Your task to perform on an android device: turn on wifi Image 0: 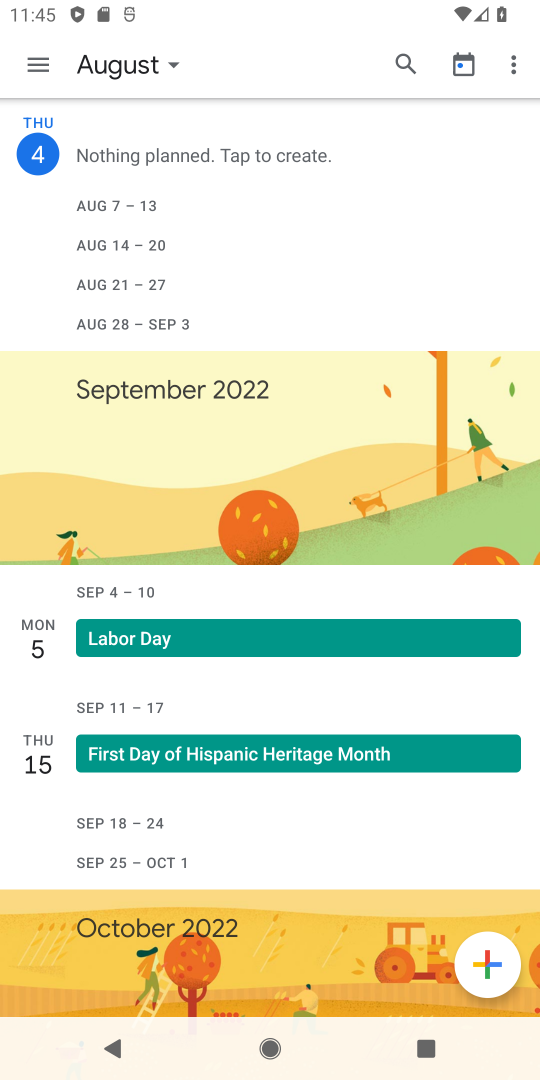
Step 0: press home button
Your task to perform on an android device: turn on wifi Image 1: 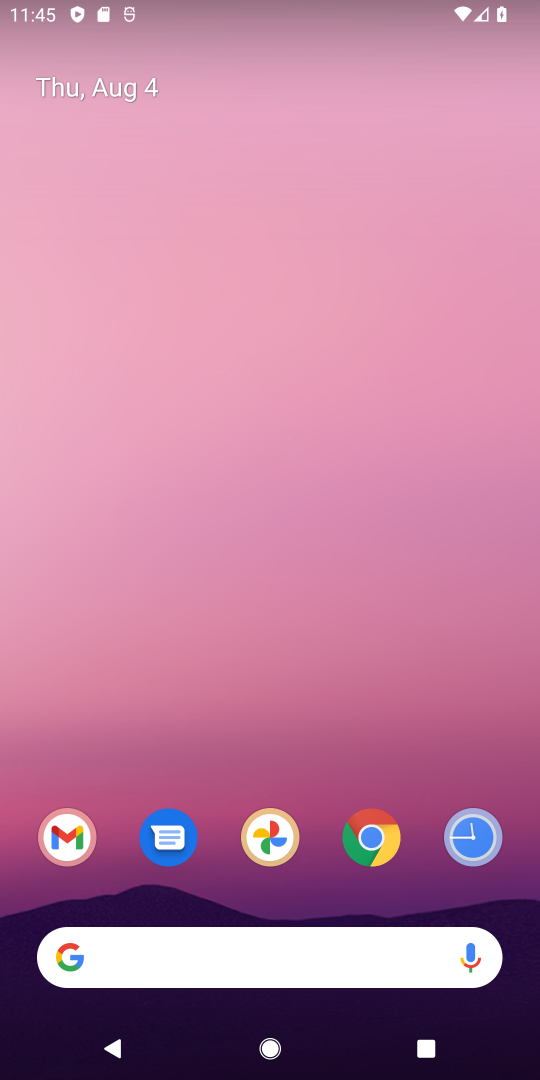
Step 1: drag from (296, 891) to (299, 232)
Your task to perform on an android device: turn on wifi Image 2: 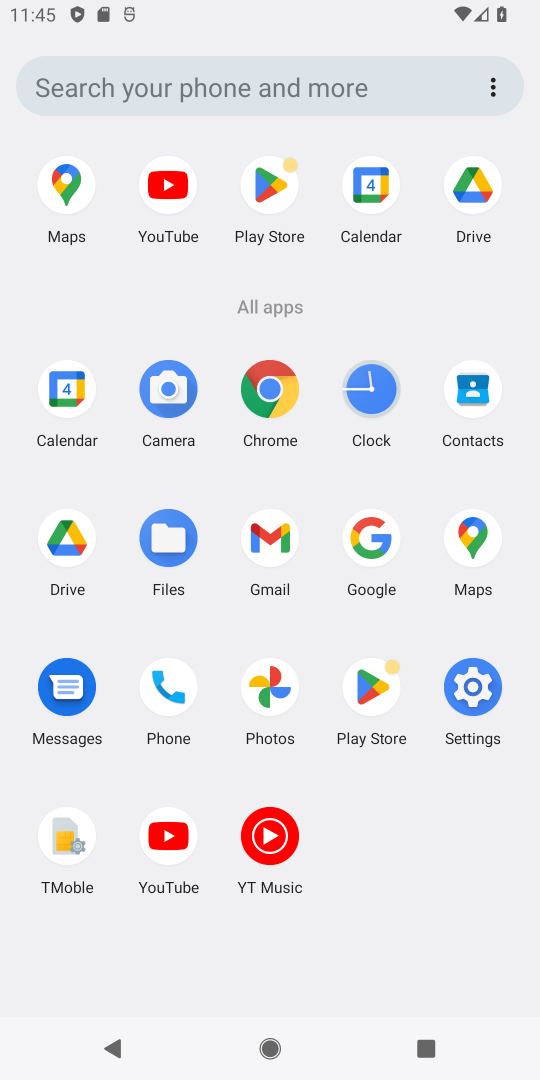
Step 2: click (458, 677)
Your task to perform on an android device: turn on wifi Image 3: 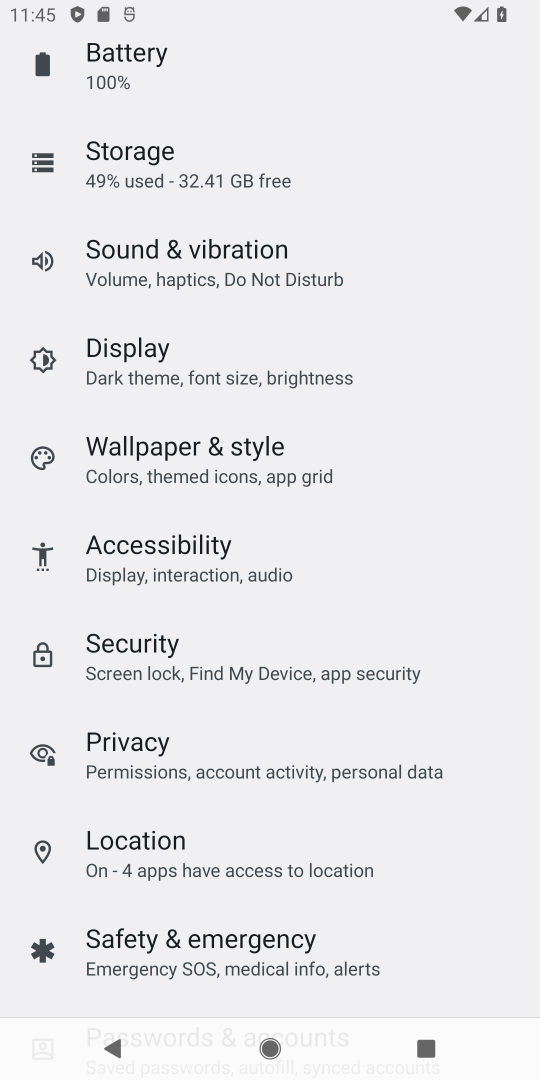
Step 3: drag from (113, 135) to (184, 463)
Your task to perform on an android device: turn on wifi Image 4: 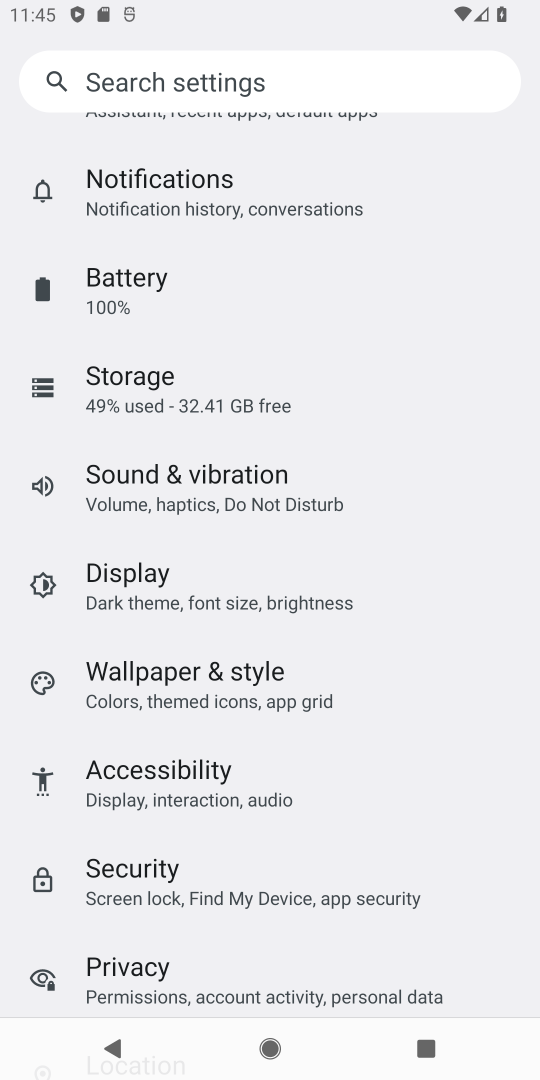
Step 4: drag from (271, 264) to (353, 639)
Your task to perform on an android device: turn on wifi Image 5: 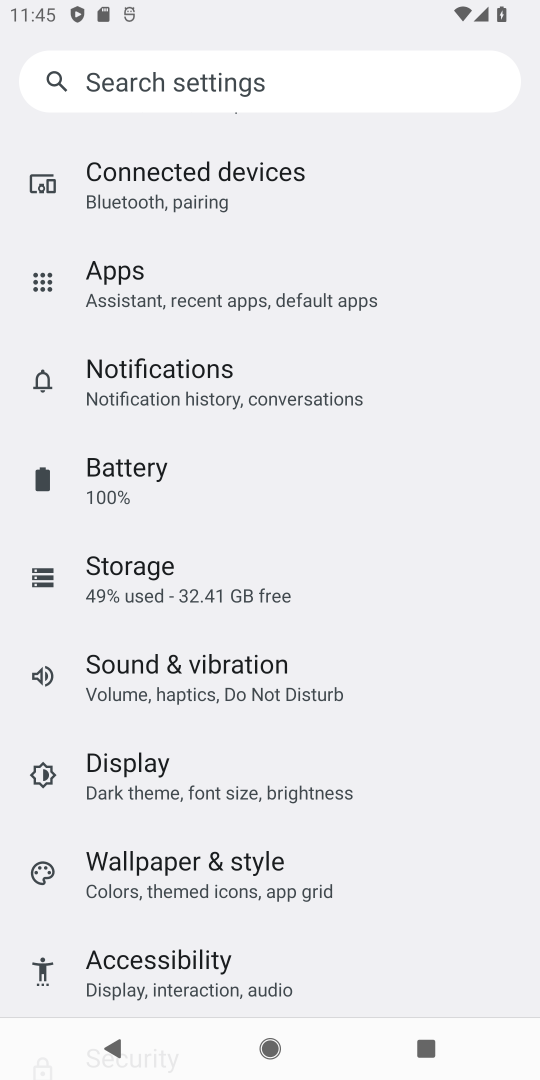
Step 5: drag from (275, 303) to (352, 782)
Your task to perform on an android device: turn on wifi Image 6: 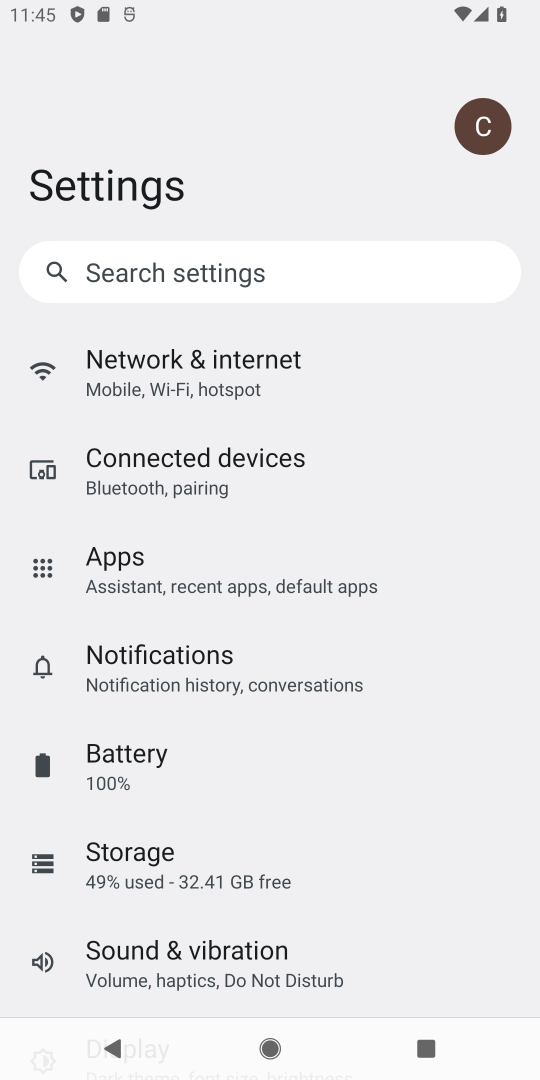
Step 6: click (154, 369)
Your task to perform on an android device: turn on wifi Image 7: 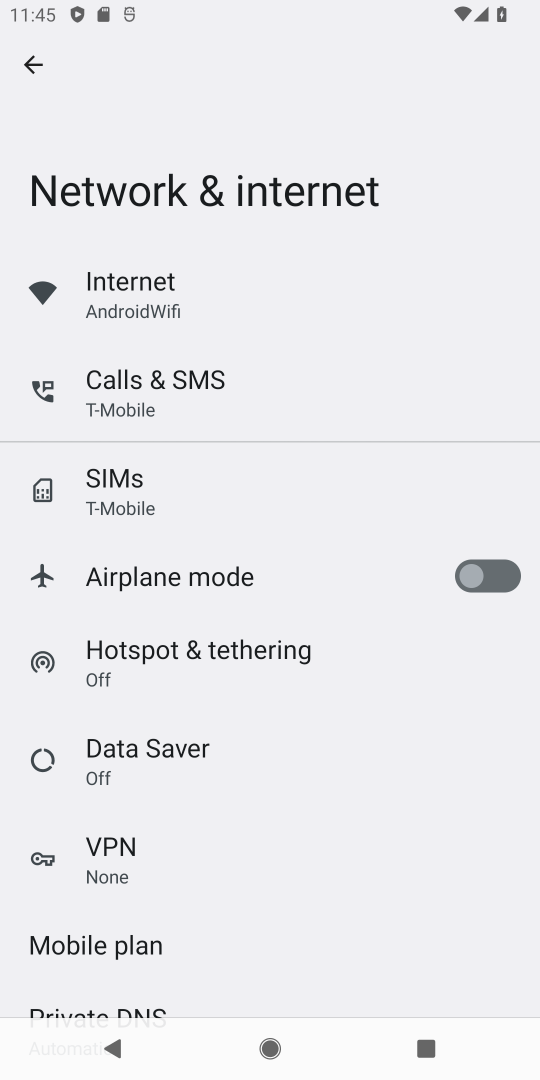
Step 7: click (239, 281)
Your task to perform on an android device: turn on wifi Image 8: 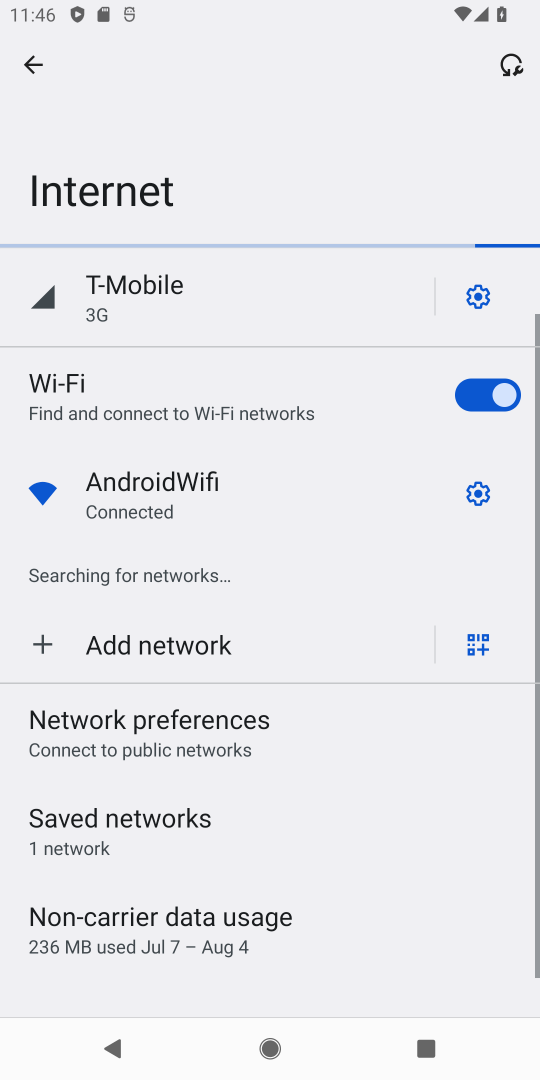
Step 8: task complete